Your task to perform on an android device: open app "Roku - Official Remote Control" Image 0: 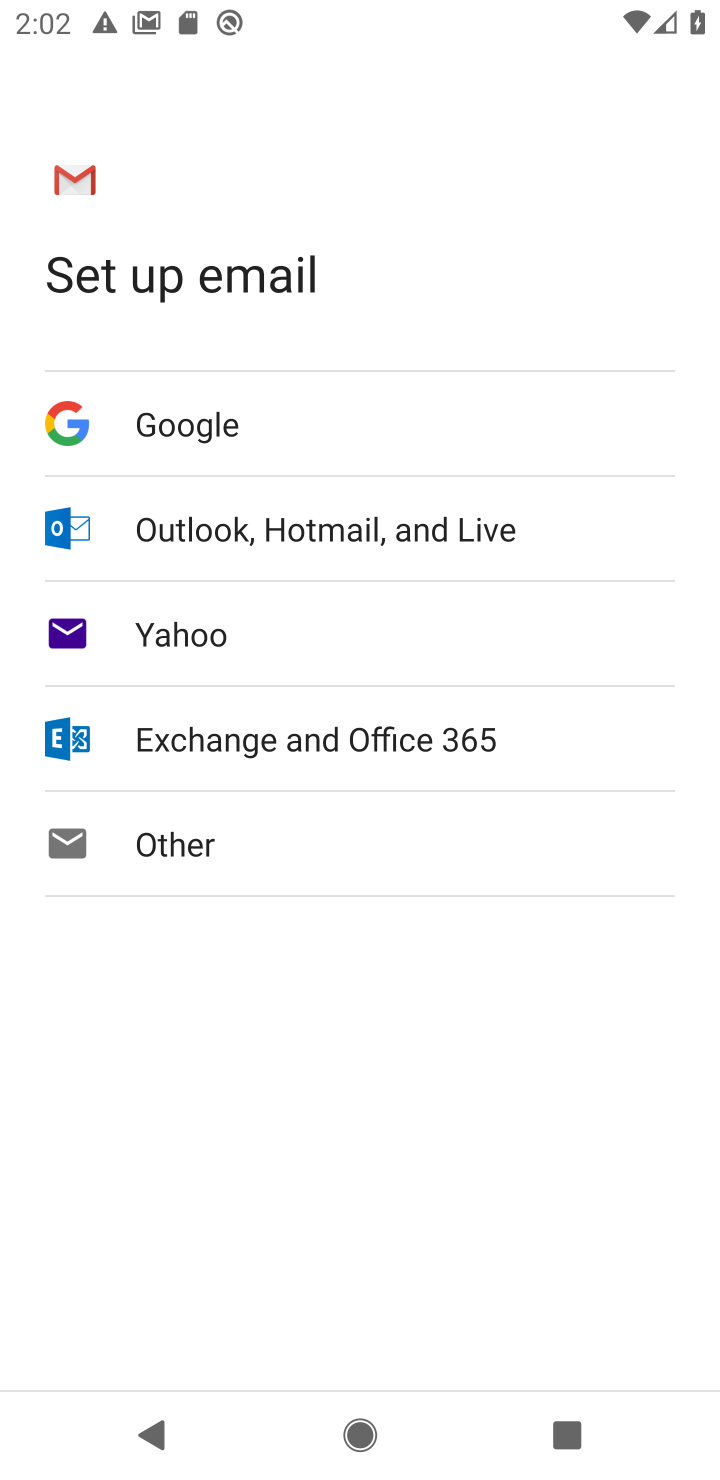
Step 0: press home button
Your task to perform on an android device: open app "Roku - Official Remote Control" Image 1: 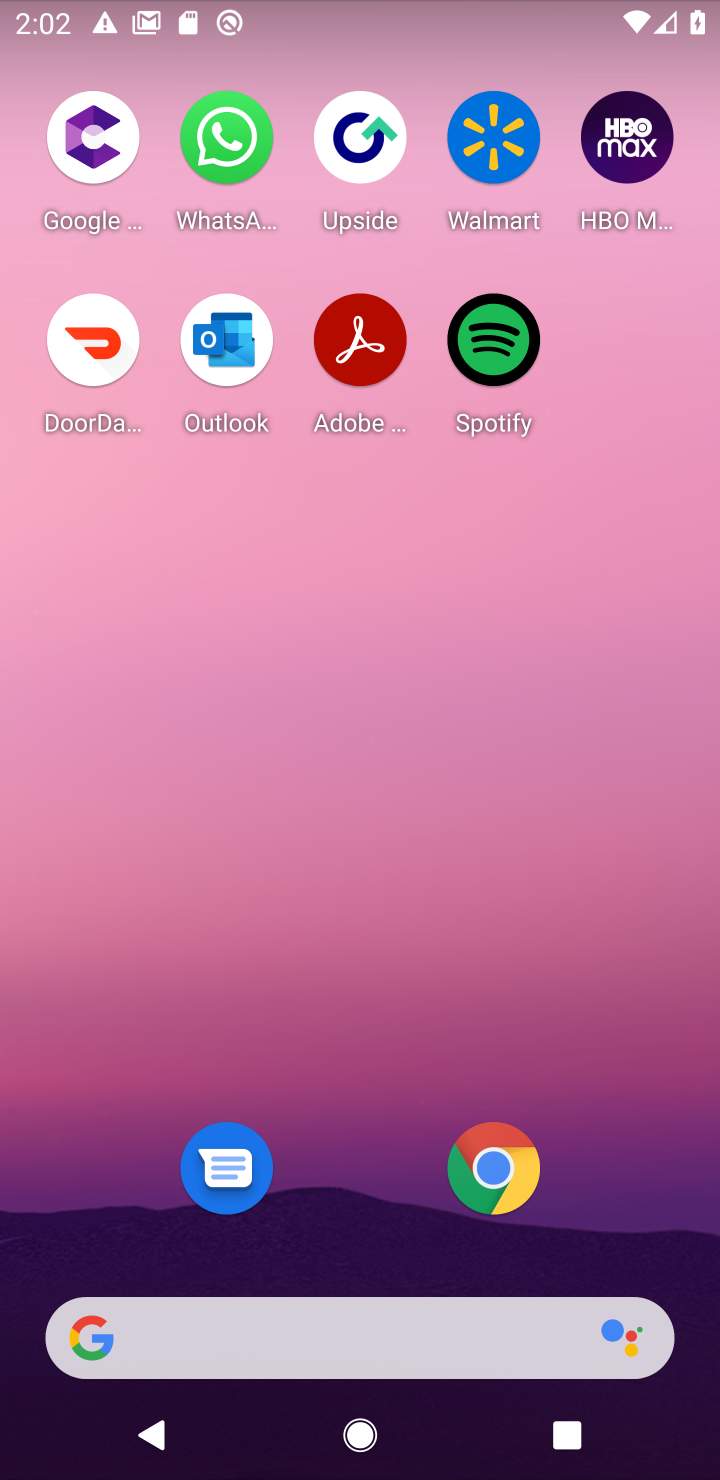
Step 1: drag from (351, 1334) to (295, 37)
Your task to perform on an android device: open app "Roku - Official Remote Control" Image 2: 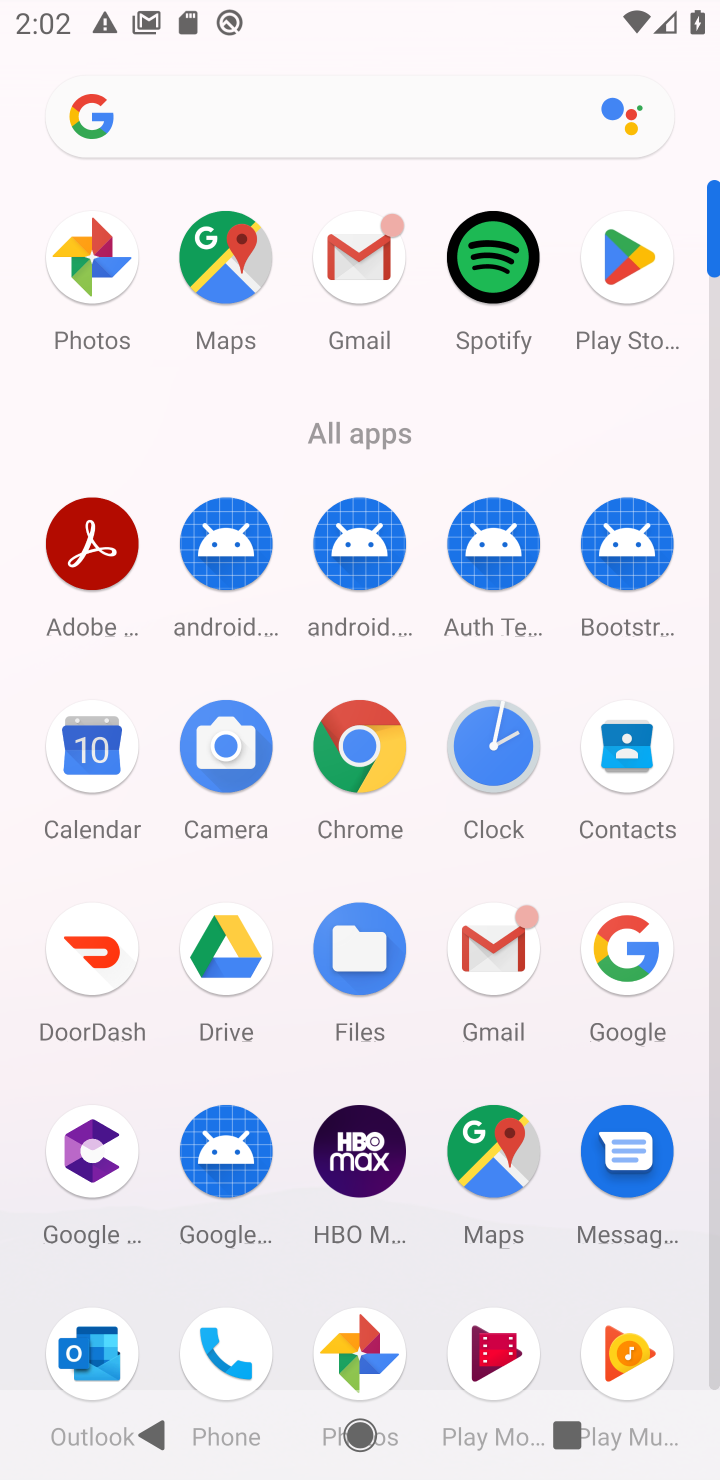
Step 2: click (626, 272)
Your task to perform on an android device: open app "Roku - Official Remote Control" Image 3: 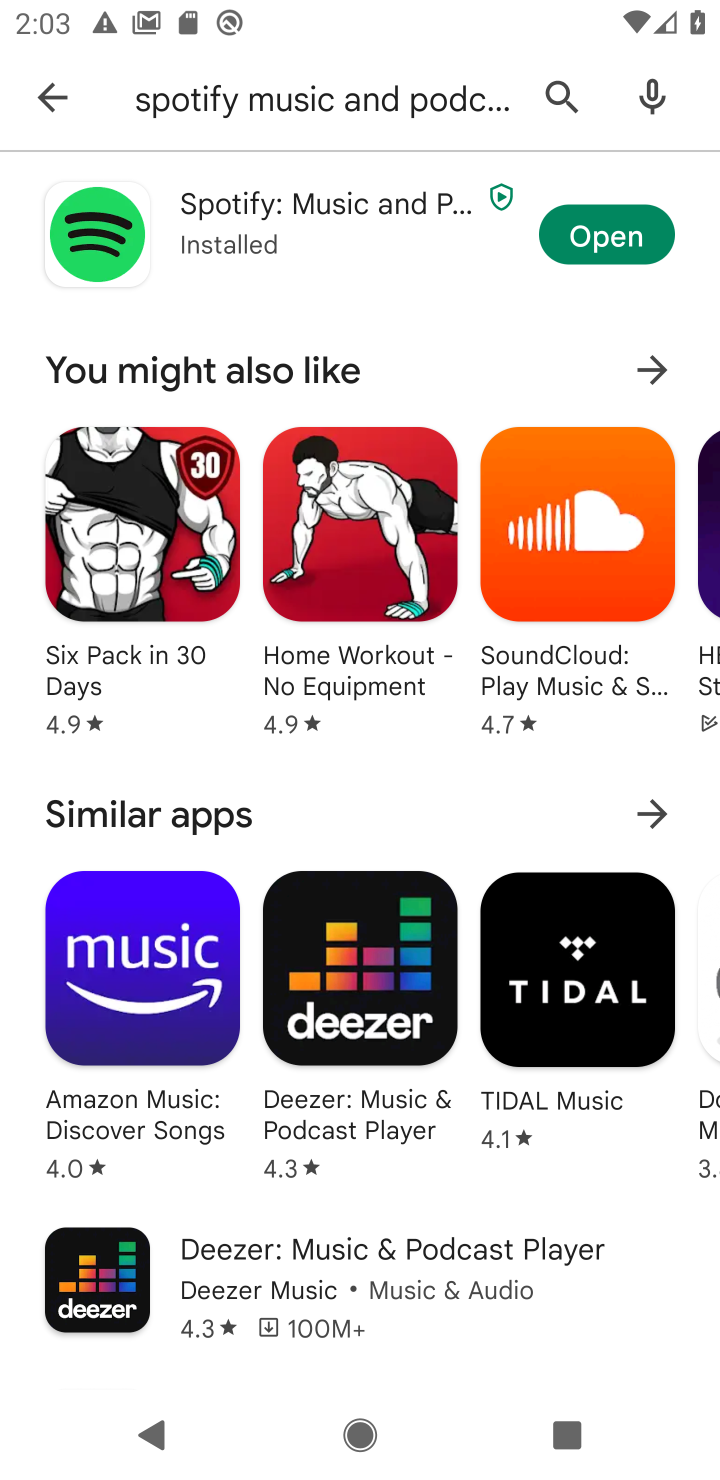
Step 3: press back button
Your task to perform on an android device: open app "Roku - Official Remote Control" Image 4: 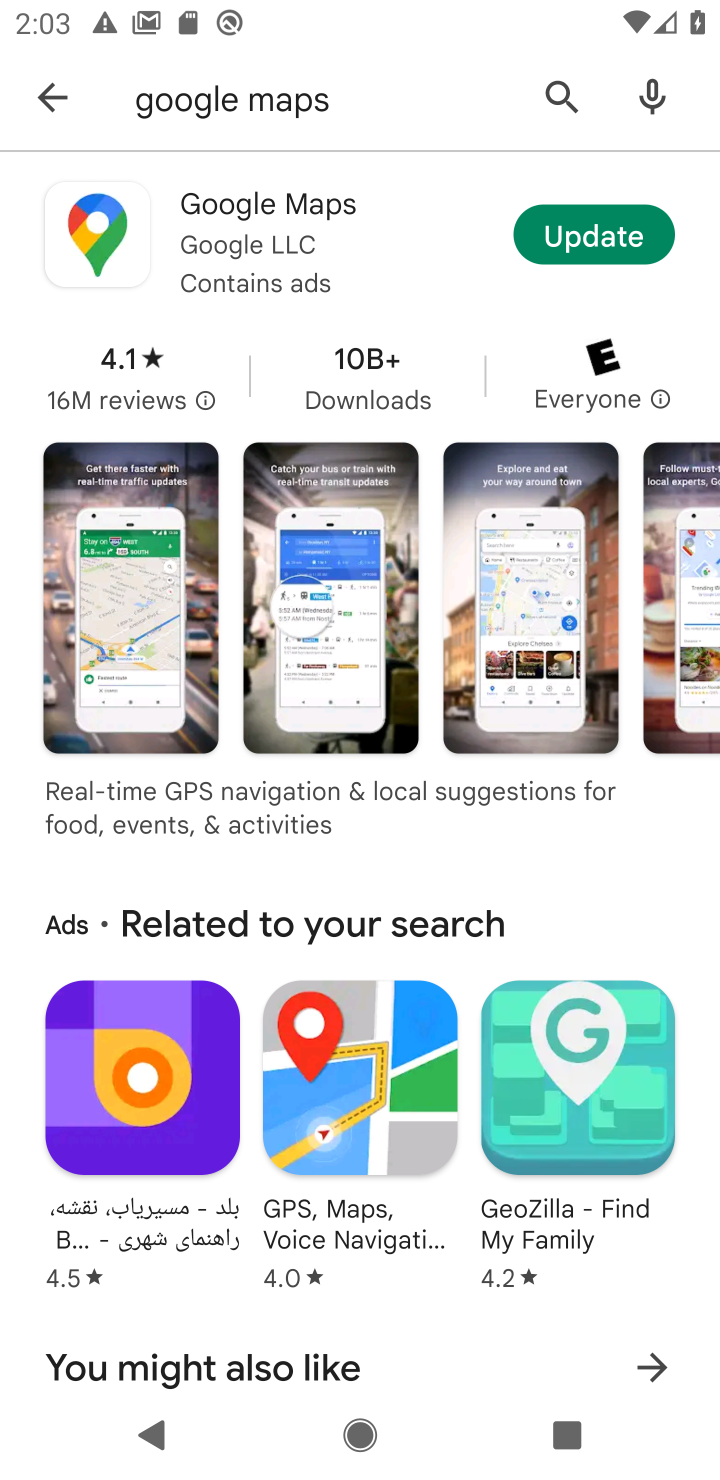
Step 4: press back button
Your task to perform on an android device: open app "Roku - Official Remote Control" Image 5: 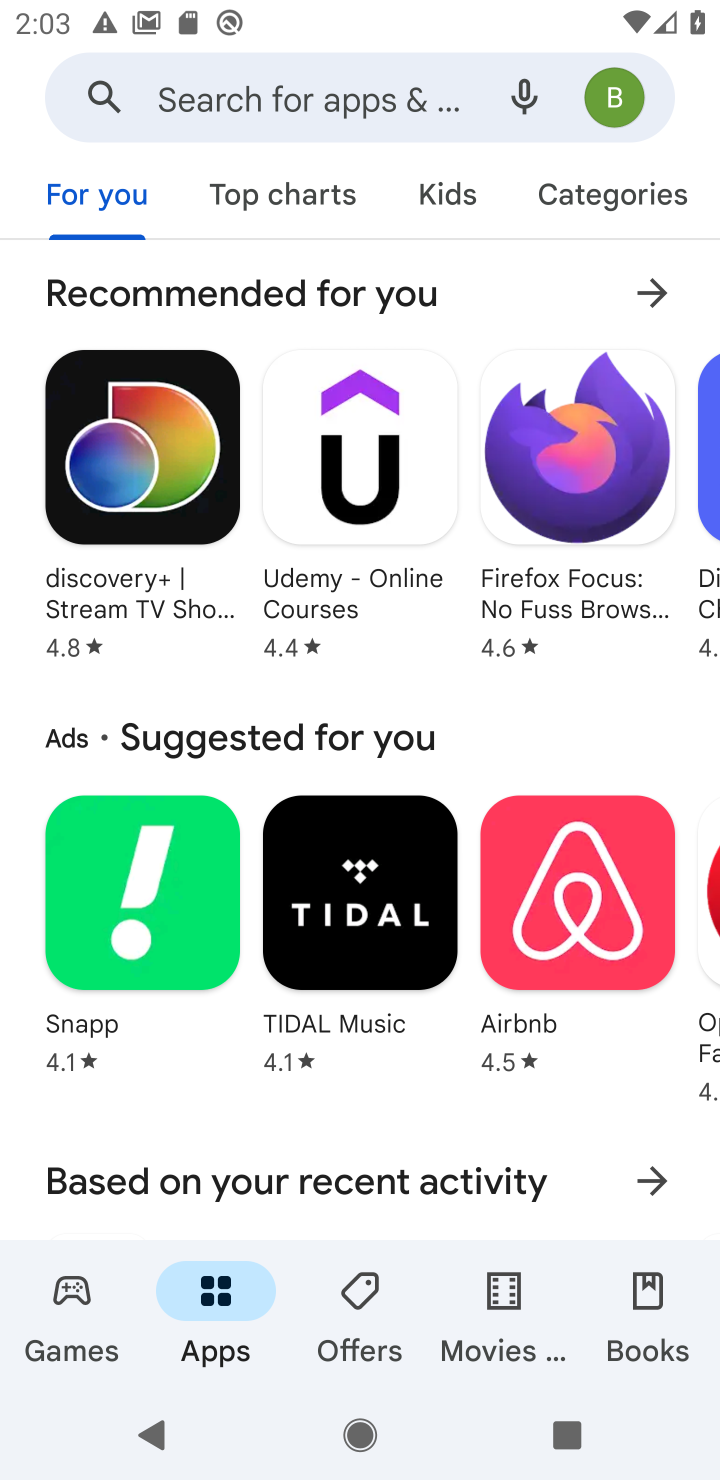
Step 5: click (228, 103)
Your task to perform on an android device: open app "Roku - Official Remote Control" Image 6: 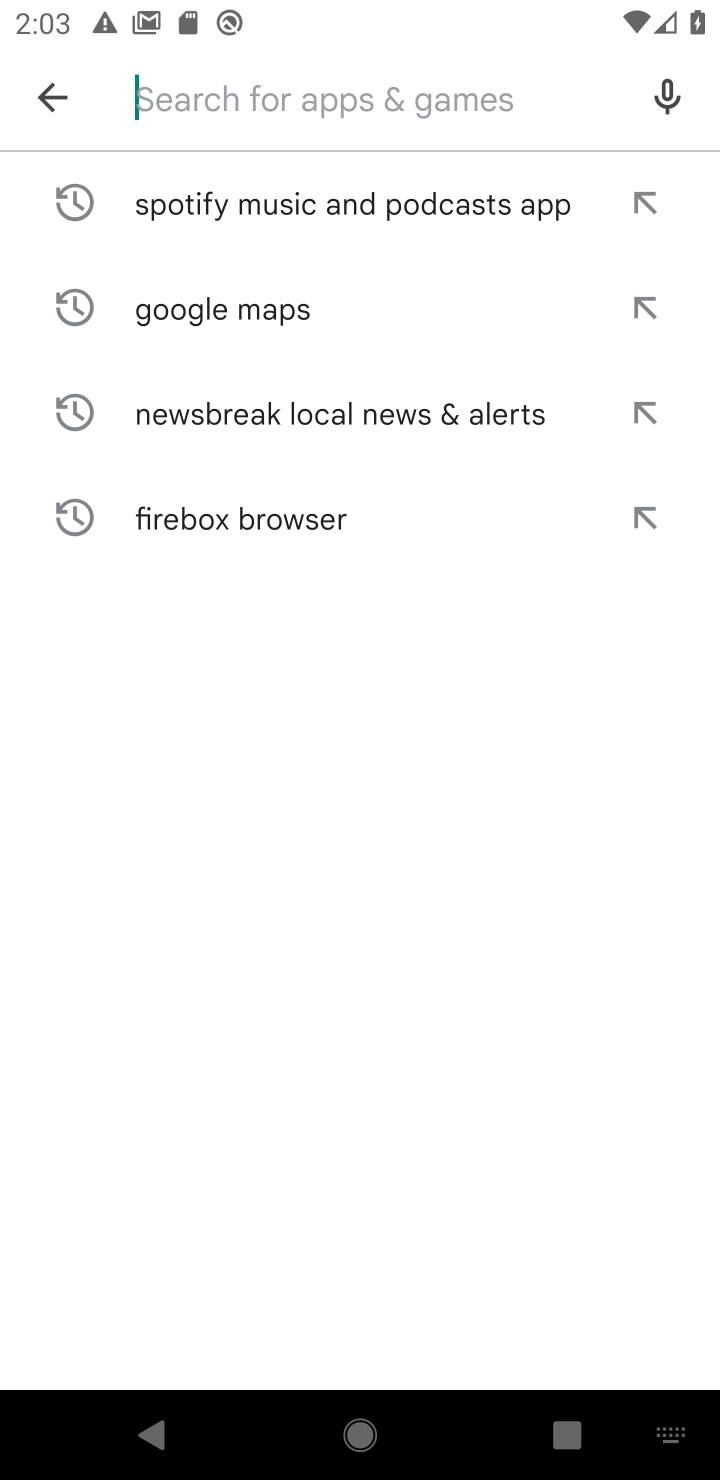
Step 6: click (253, 119)
Your task to perform on an android device: open app "Roku - Official Remote Control" Image 7: 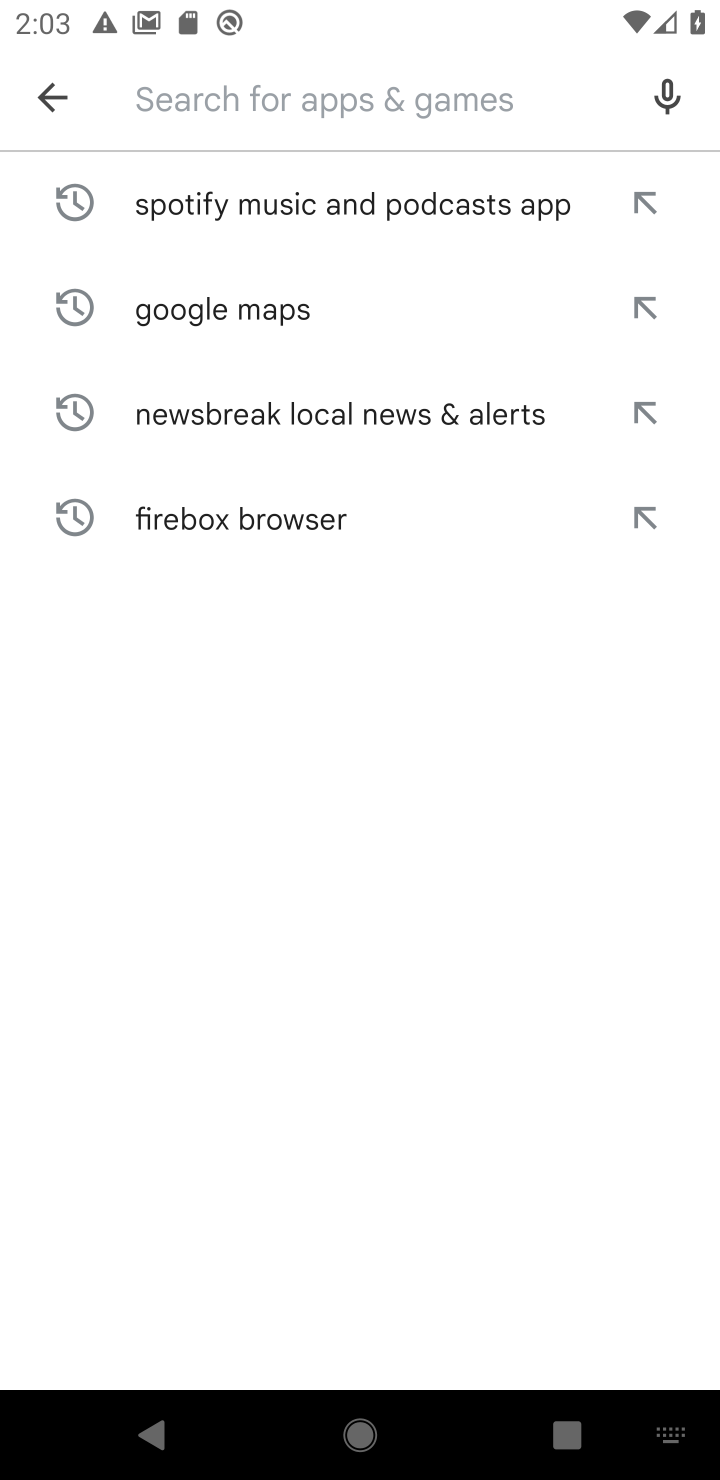
Step 7: type "Roku - Official Remote Control"
Your task to perform on an android device: open app "Roku - Official Remote Control" Image 8: 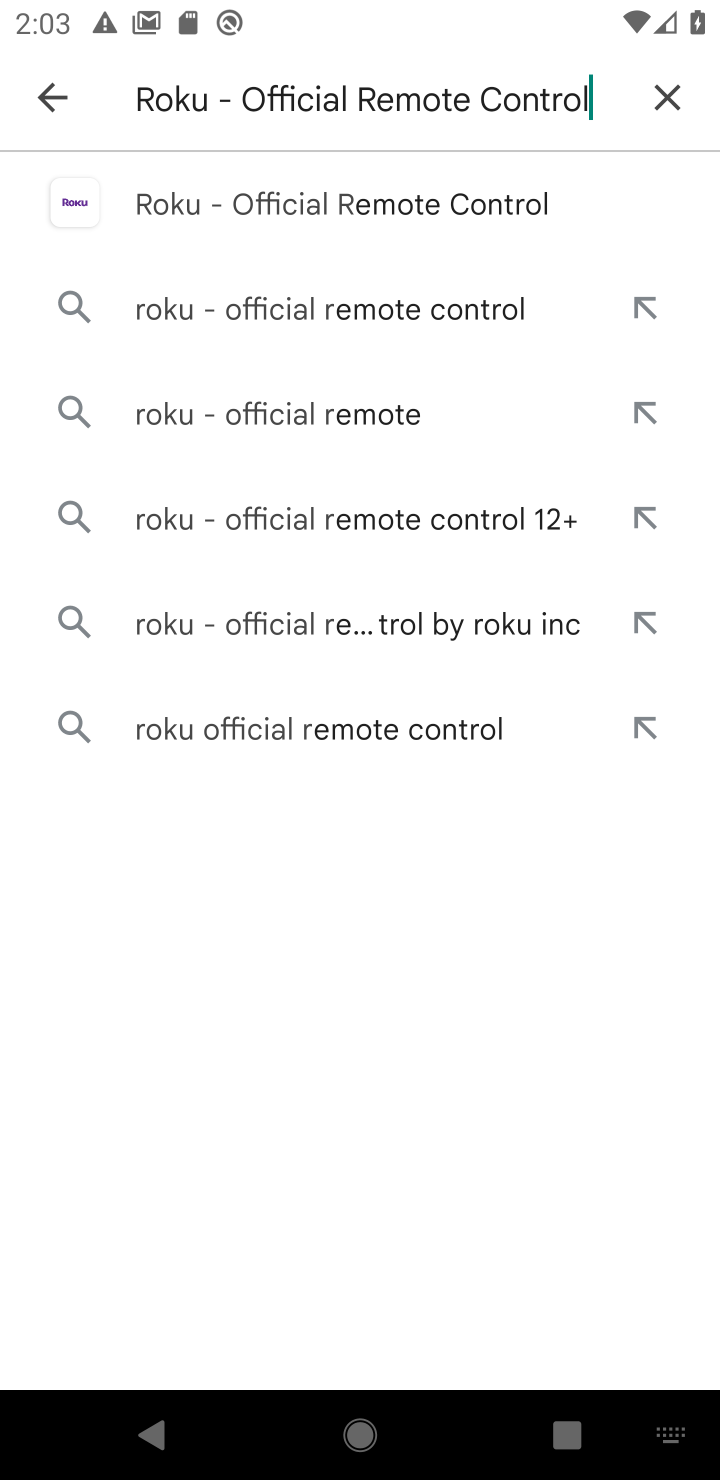
Step 8: type ""
Your task to perform on an android device: open app "Roku - Official Remote Control" Image 9: 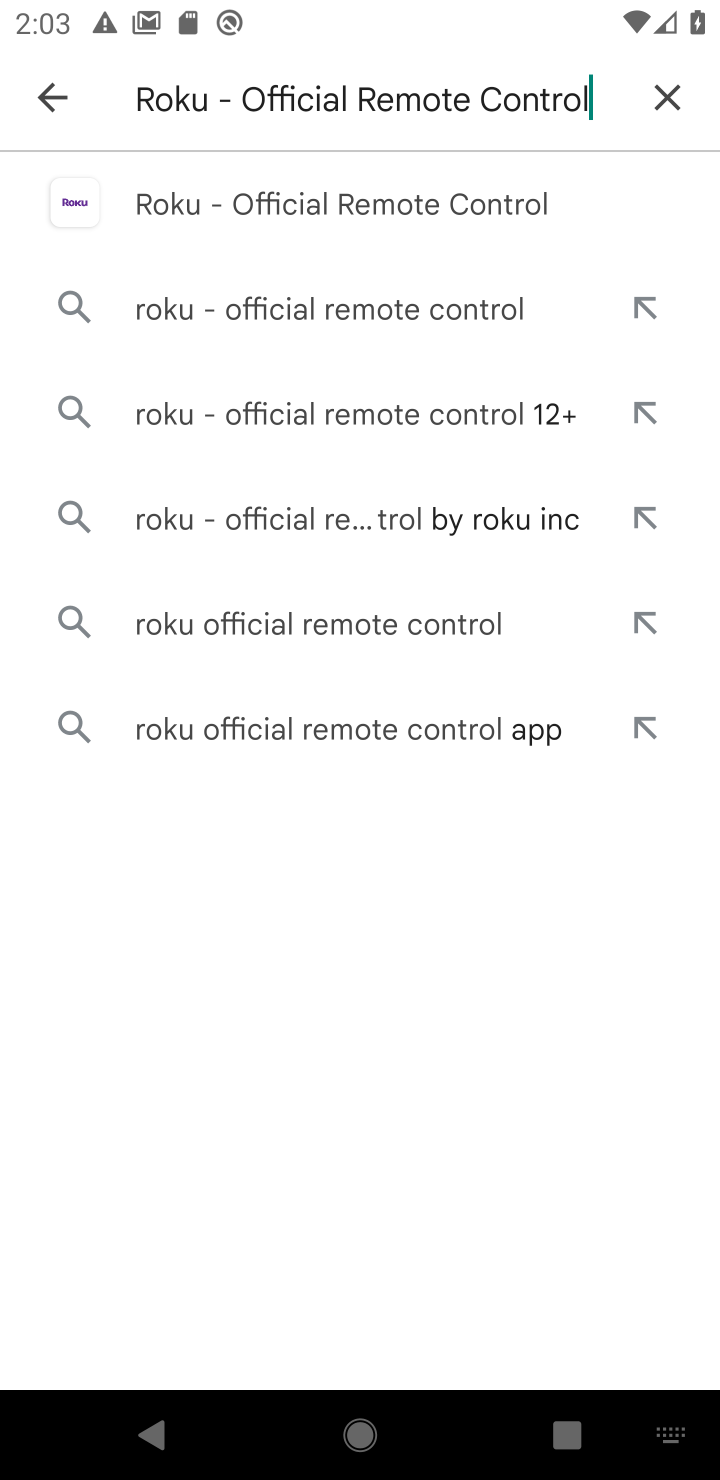
Step 9: click (351, 220)
Your task to perform on an android device: open app "Roku - Official Remote Control" Image 10: 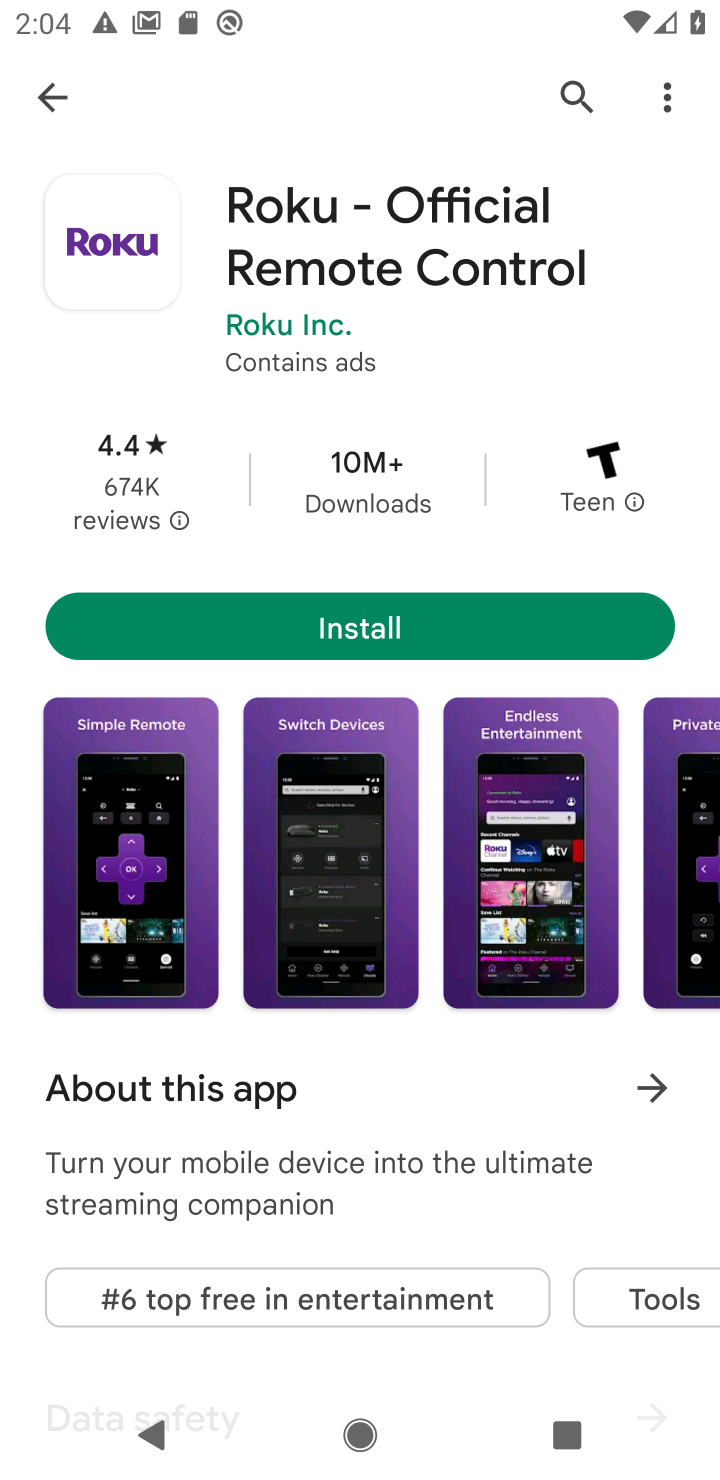
Step 10: task complete